Your task to perform on an android device: Open Yahoo.com Image 0: 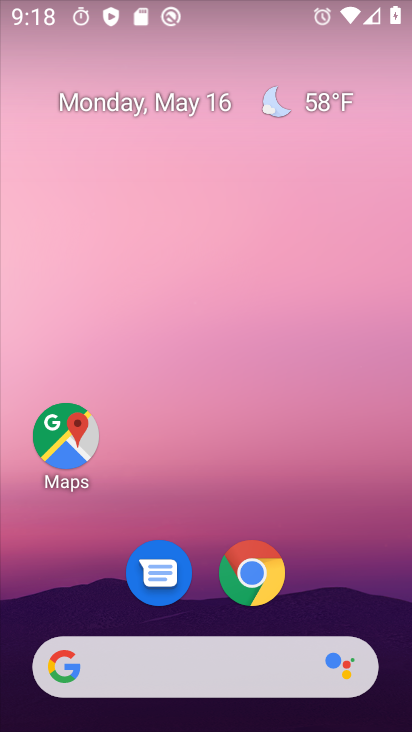
Step 0: drag from (371, 637) to (150, 83)
Your task to perform on an android device: Open Yahoo.com Image 1: 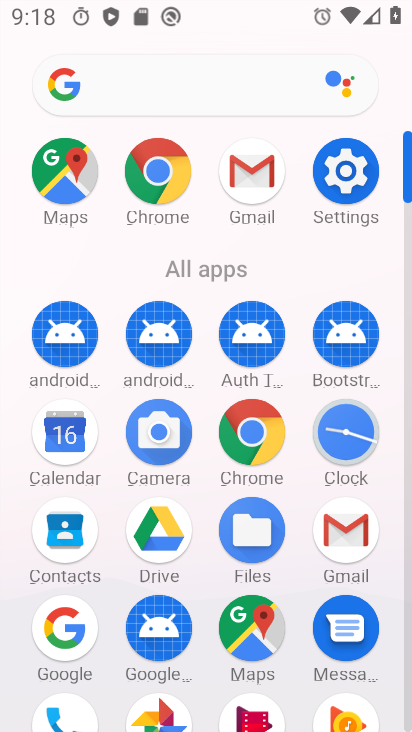
Step 1: click (168, 185)
Your task to perform on an android device: Open Yahoo.com Image 2: 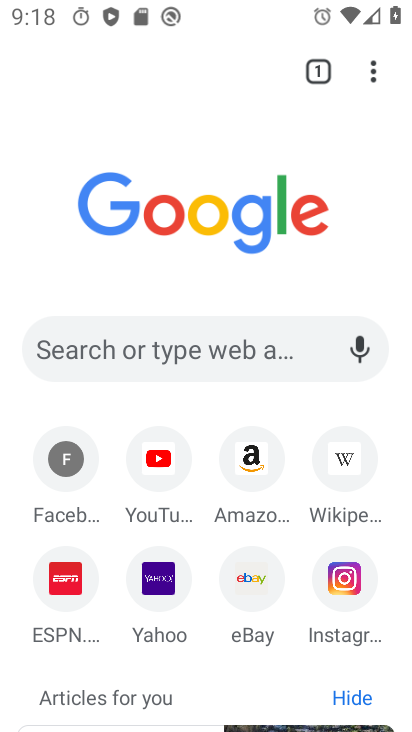
Step 2: click (158, 582)
Your task to perform on an android device: Open Yahoo.com Image 3: 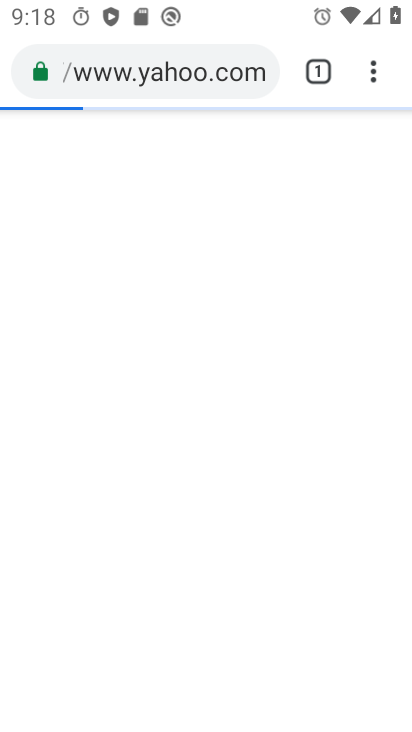
Step 3: click (157, 580)
Your task to perform on an android device: Open Yahoo.com Image 4: 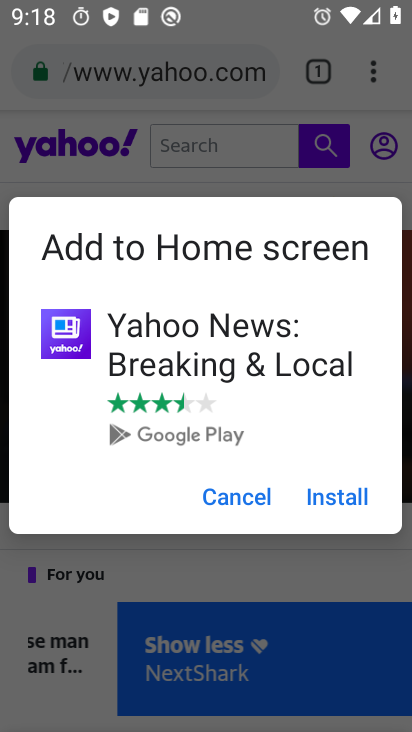
Step 4: click (247, 496)
Your task to perform on an android device: Open Yahoo.com Image 5: 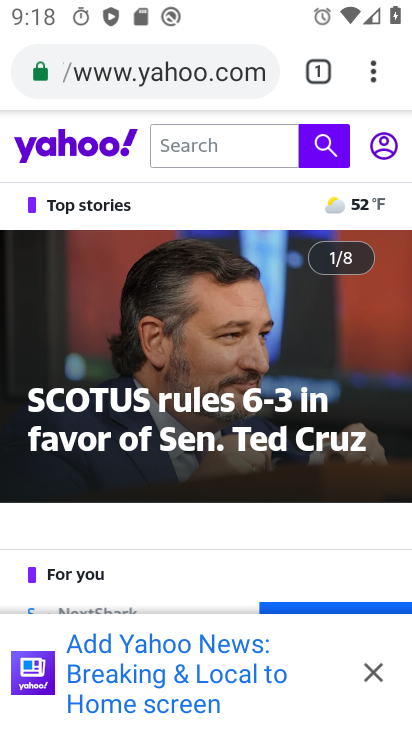
Step 5: task complete